Your task to perform on an android device: delete the emails in spam in the gmail app Image 0: 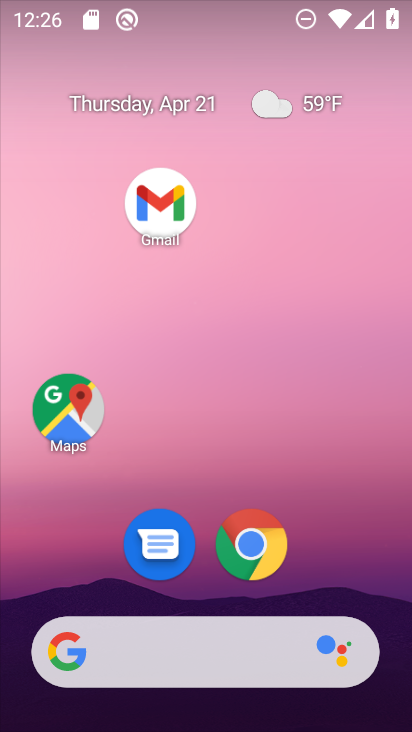
Step 0: click (161, 208)
Your task to perform on an android device: delete the emails in spam in the gmail app Image 1: 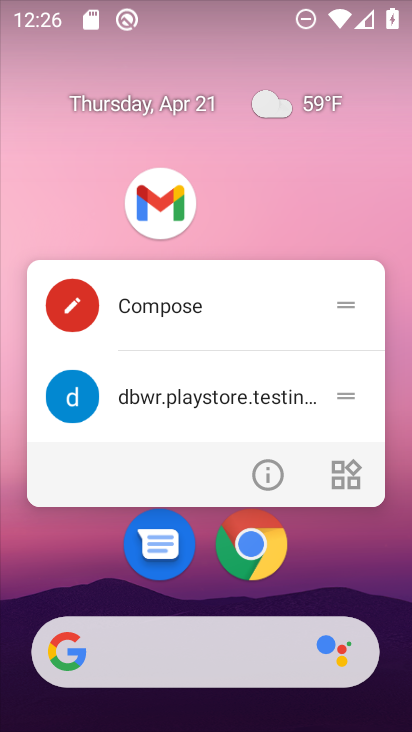
Step 1: click (161, 208)
Your task to perform on an android device: delete the emails in spam in the gmail app Image 2: 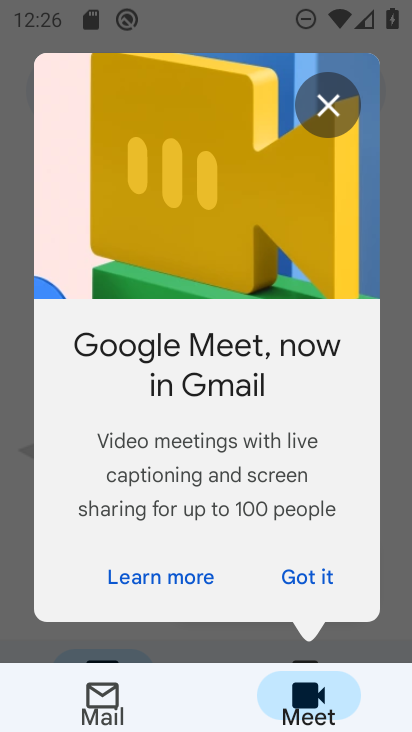
Step 2: click (320, 582)
Your task to perform on an android device: delete the emails in spam in the gmail app Image 3: 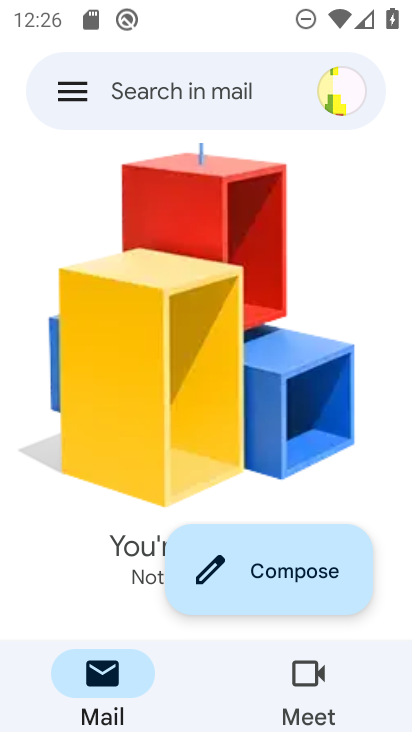
Step 3: click (60, 96)
Your task to perform on an android device: delete the emails in spam in the gmail app Image 4: 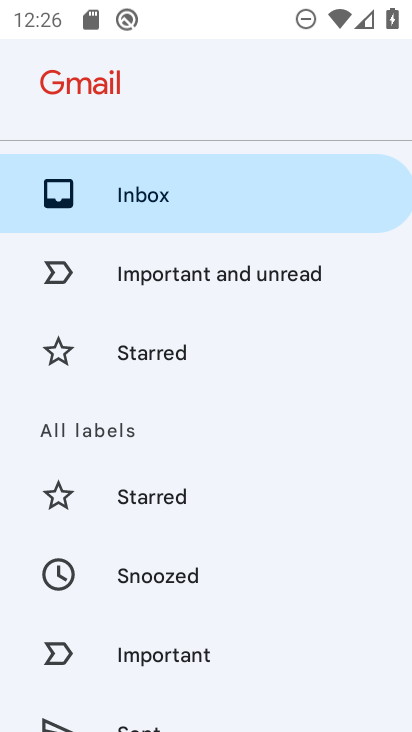
Step 4: drag from (158, 500) to (238, 82)
Your task to perform on an android device: delete the emails in spam in the gmail app Image 5: 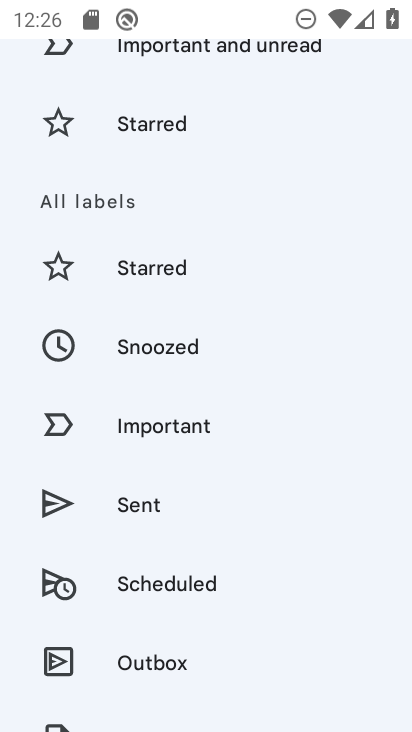
Step 5: drag from (252, 531) to (273, 175)
Your task to perform on an android device: delete the emails in spam in the gmail app Image 6: 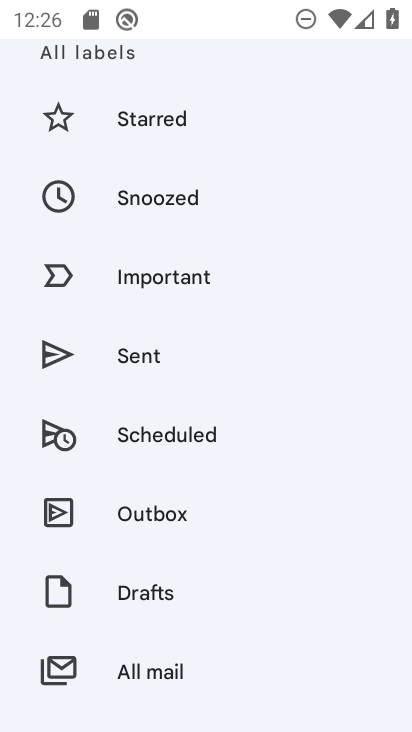
Step 6: drag from (227, 488) to (260, 154)
Your task to perform on an android device: delete the emails in spam in the gmail app Image 7: 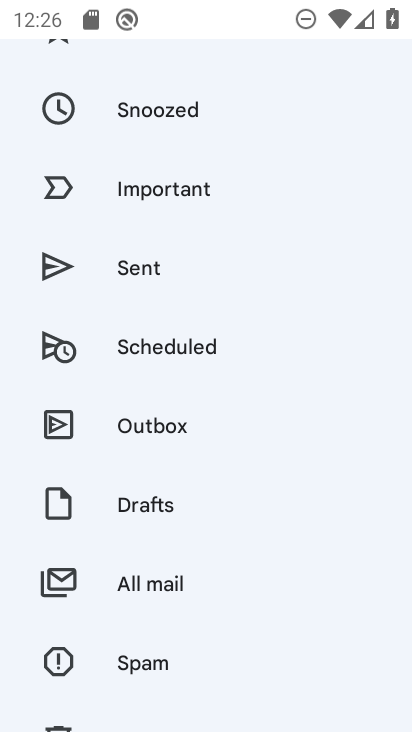
Step 7: drag from (232, 599) to (261, 201)
Your task to perform on an android device: delete the emails in spam in the gmail app Image 8: 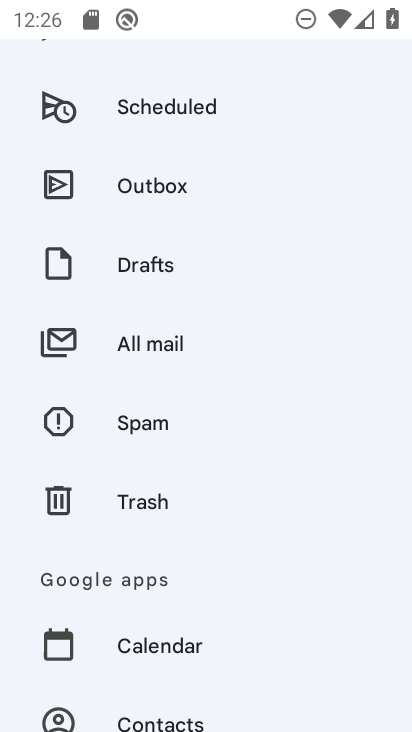
Step 8: click (209, 343)
Your task to perform on an android device: delete the emails in spam in the gmail app Image 9: 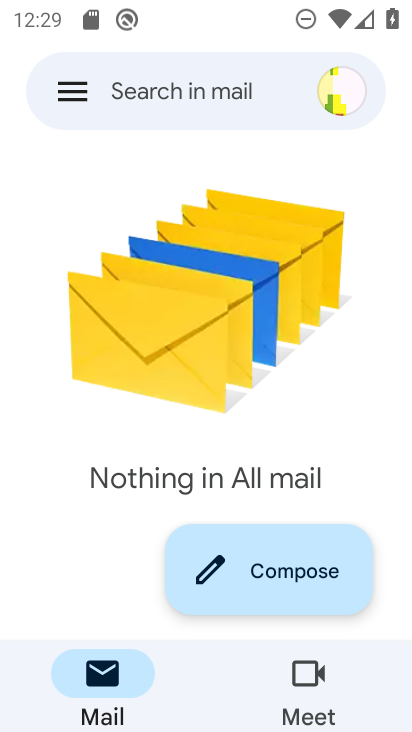
Step 9: click (56, 89)
Your task to perform on an android device: delete the emails in spam in the gmail app Image 10: 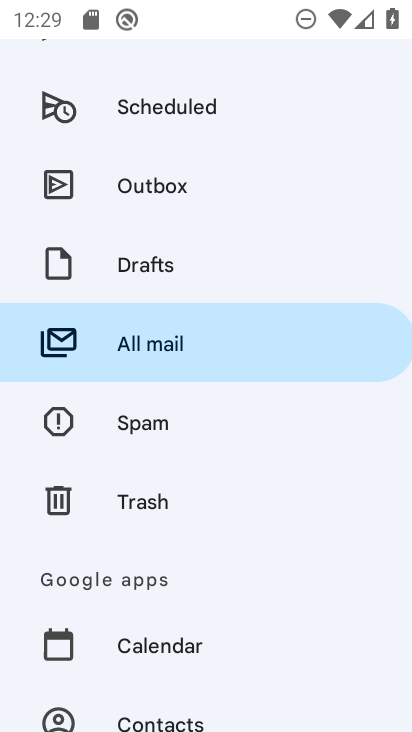
Step 10: task complete